Your task to perform on an android device: choose inbox layout in the gmail app Image 0: 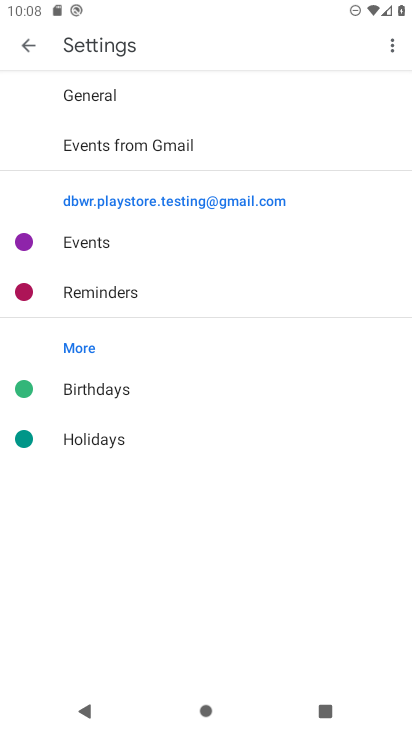
Step 0: press home button
Your task to perform on an android device: choose inbox layout in the gmail app Image 1: 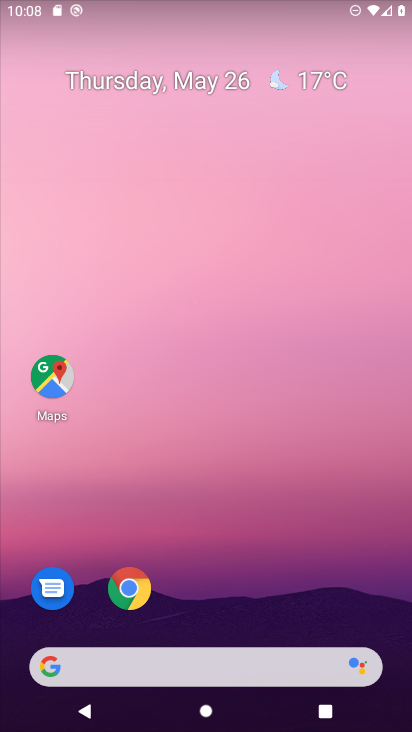
Step 1: drag from (377, 612) to (313, 72)
Your task to perform on an android device: choose inbox layout in the gmail app Image 2: 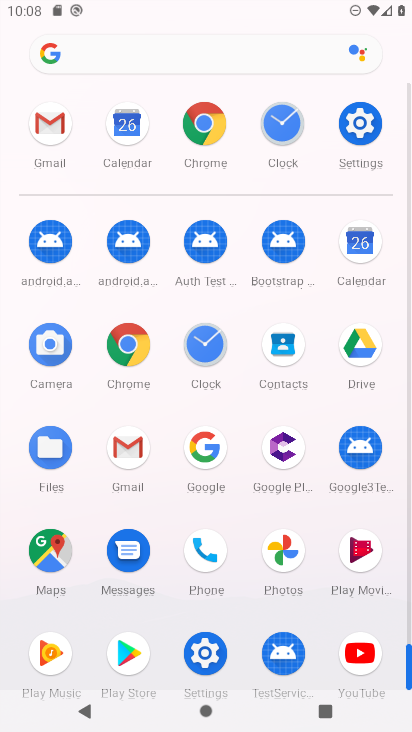
Step 2: click (127, 448)
Your task to perform on an android device: choose inbox layout in the gmail app Image 3: 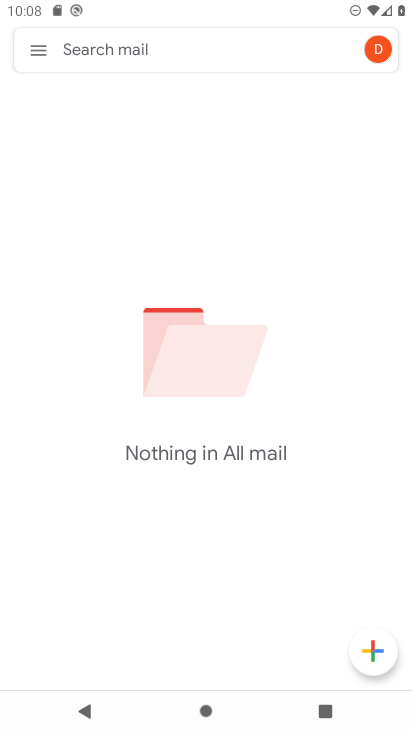
Step 3: click (36, 44)
Your task to perform on an android device: choose inbox layout in the gmail app Image 4: 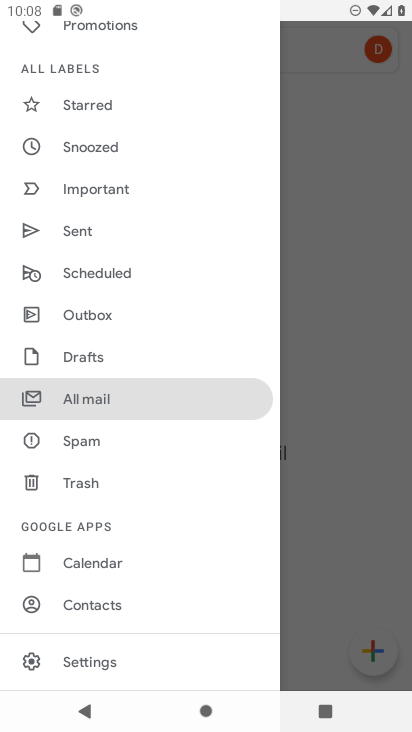
Step 4: click (94, 652)
Your task to perform on an android device: choose inbox layout in the gmail app Image 5: 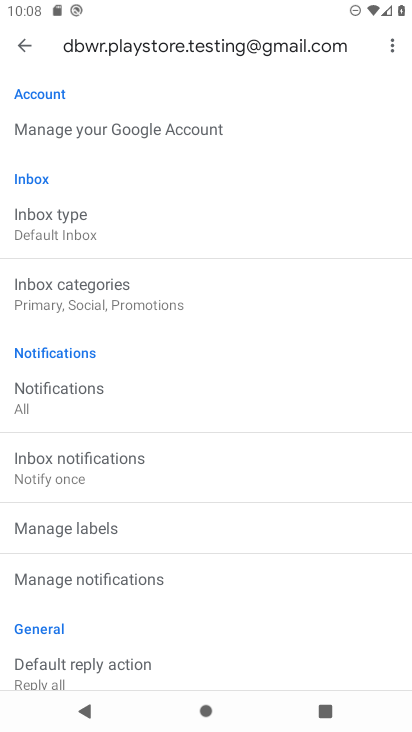
Step 5: click (44, 225)
Your task to perform on an android device: choose inbox layout in the gmail app Image 6: 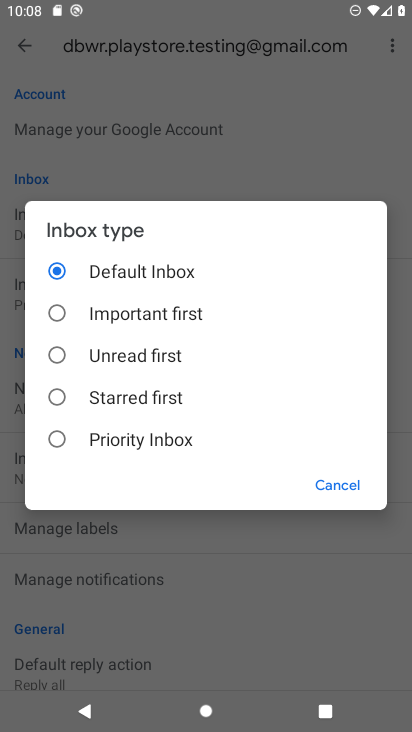
Step 6: click (54, 318)
Your task to perform on an android device: choose inbox layout in the gmail app Image 7: 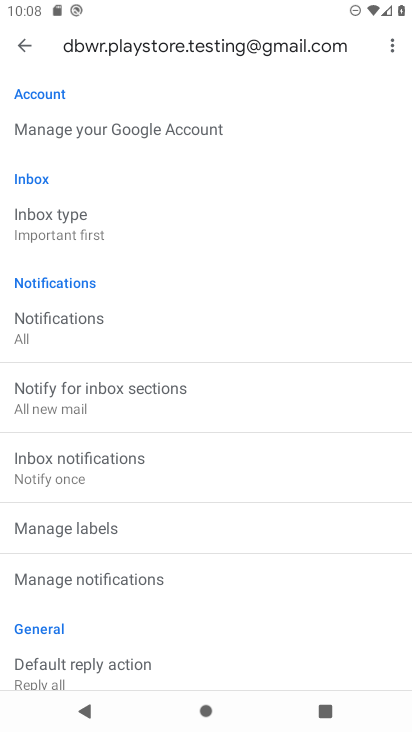
Step 7: task complete